Your task to perform on an android device: Open the map Image 0: 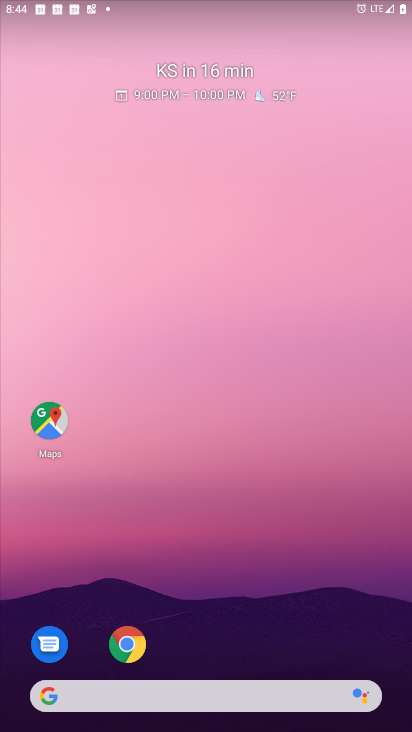
Step 0: drag from (349, 639) to (232, 114)
Your task to perform on an android device: Open the map Image 1: 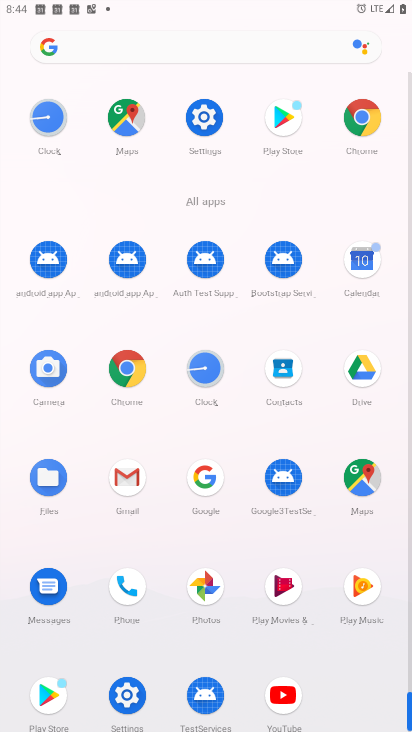
Step 1: click (358, 478)
Your task to perform on an android device: Open the map Image 2: 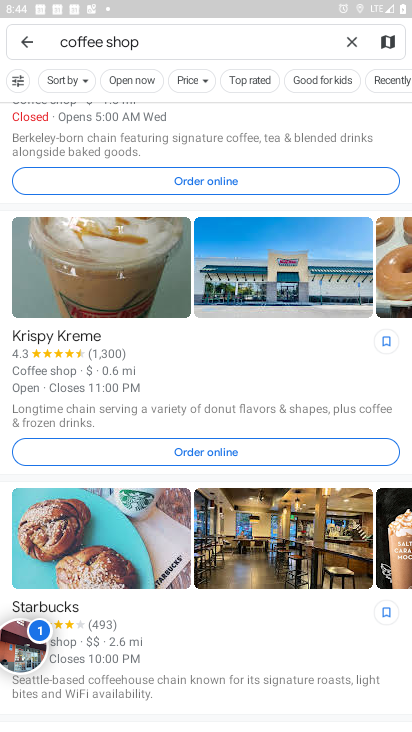
Step 2: click (350, 41)
Your task to perform on an android device: Open the map Image 3: 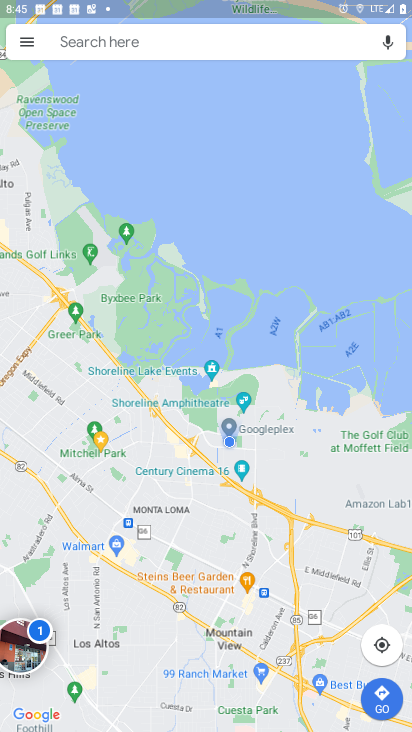
Step 3: task complete